Your task to perform on an android device: turn notification dots on Image 0: 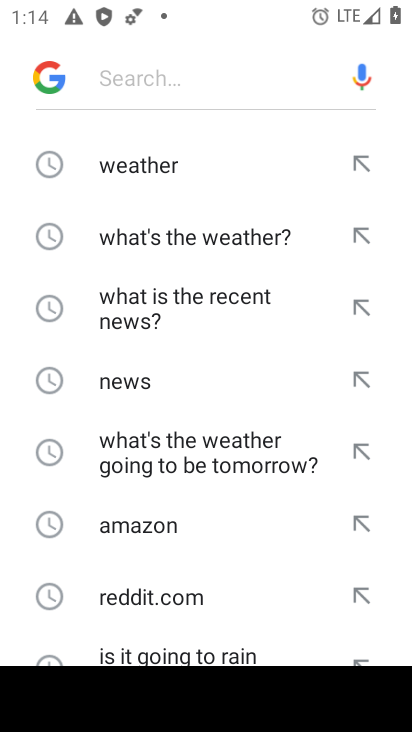
Step 0: press home button
Your task to perform on an android device: turn notification dots on Image 1: 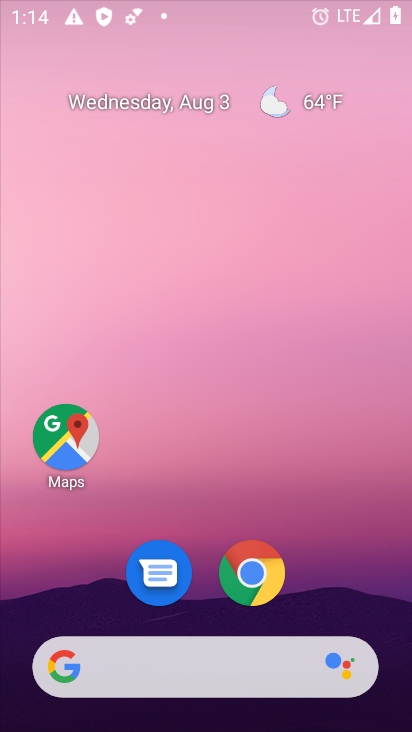
Step 1: drag from (231, 679) to (392, 338)
Your task to perform on an android device: turn notification dots on Image 2: 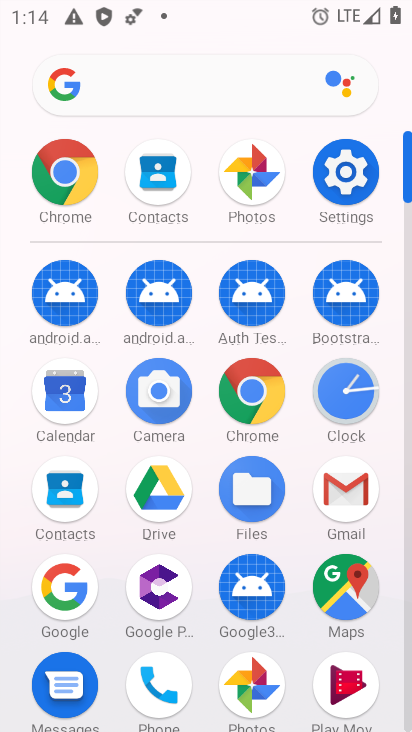
Step 2: click (339, 195)
Your task to perform on an android device: turn notification dots on Image 3: 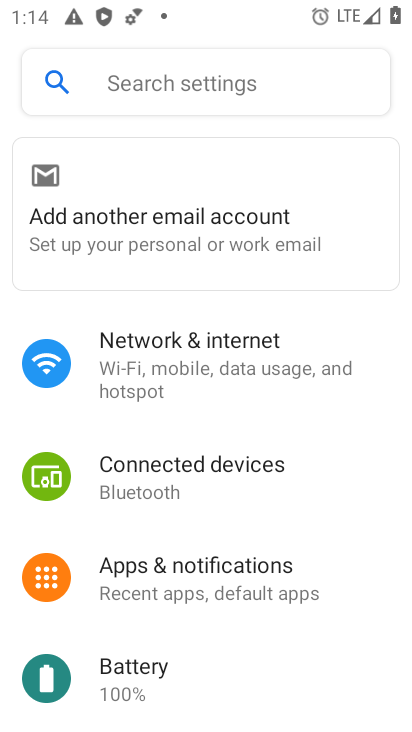
Step 3: click (223, 587)
Your task to perform on an android device: turn notification dots on Image 4: 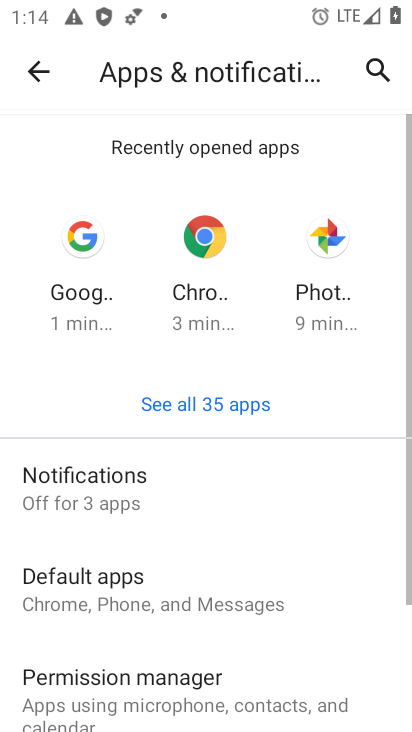
Step 4: drag from (201, 598) to (399, 32)
Your task to perform on an android device: turn notification dots on Image 5: 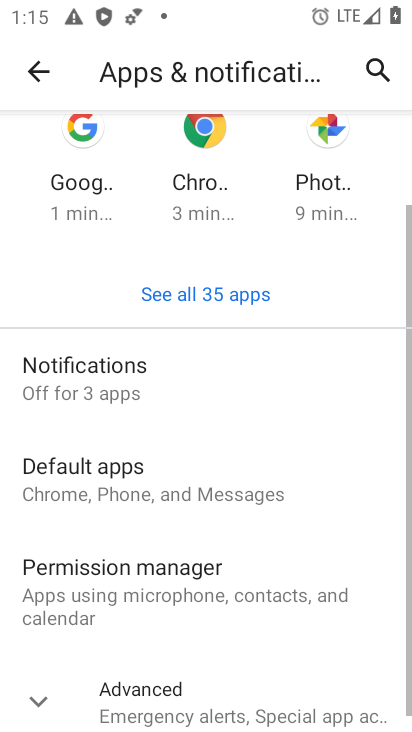
Step 5: drag from (110, 624) to (129, 260)
Your task to perform on an android device: turn notification dots on Image 6: 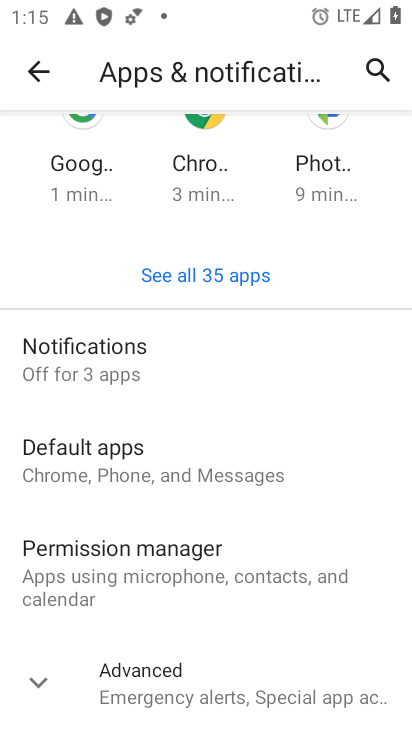
Step 6: drag from (162, 601) to (180, 255)
Your task to perform on an android device: turn notification dots on Image 7: 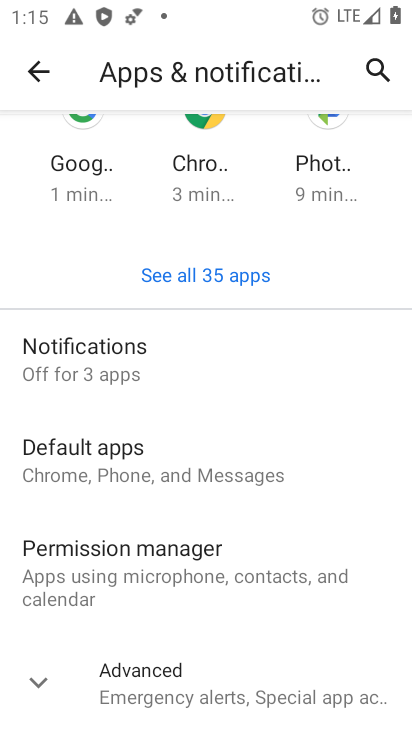
Step 7: drag from (216, 527) to (220, 255)
Your task to perform on an android device: turn notification dots on Image 8: 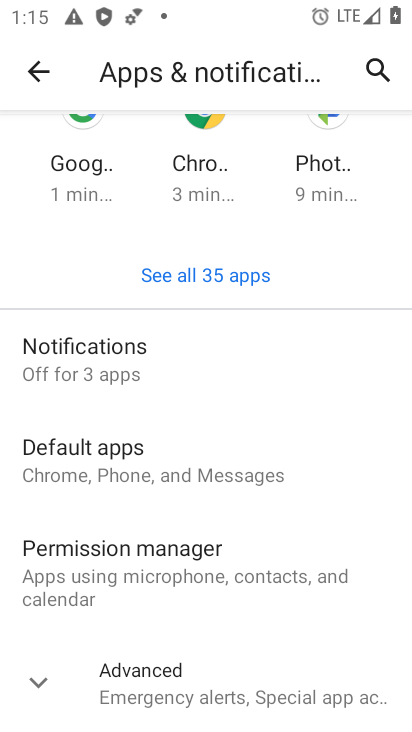
Step 8: drag from (180, 602) to (246, 56)
Your task to perform on an android device: turn notification dots on Image 9: 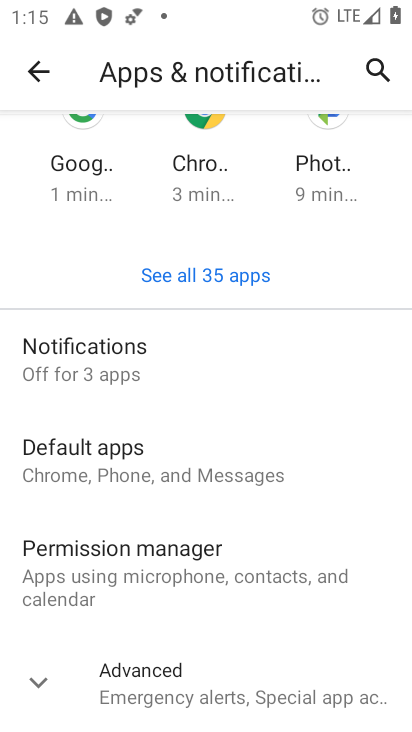
Step 9: click (157, 687)
Your task to perform on an android device: turn notification dots on Image 10: 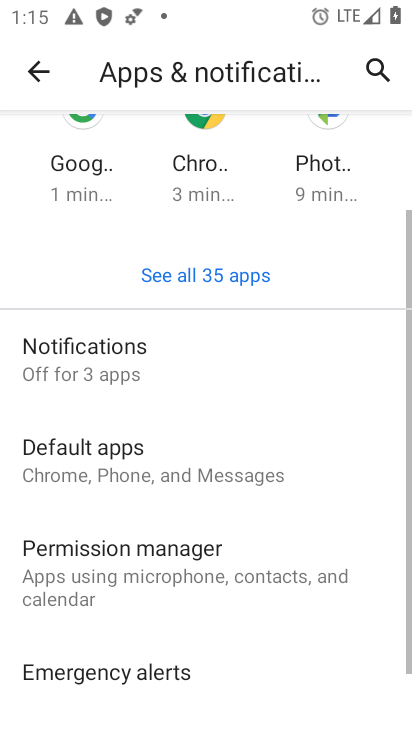
Step 10: drag from (219, 525) to (232, 91)
Your task to perform on an android device: turn notification dots on Image 11: 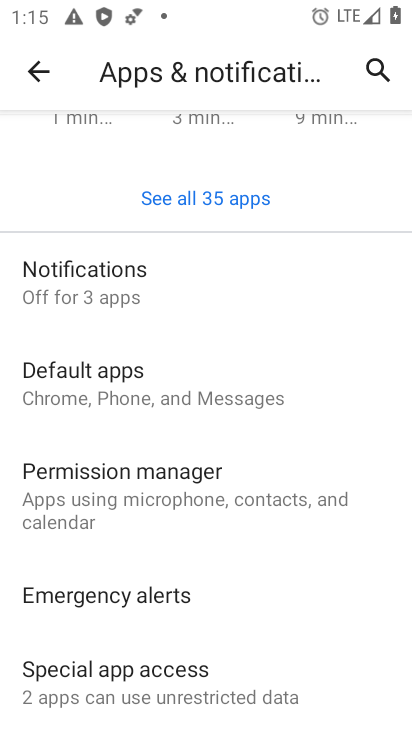
Step 11: drag from (152, 559) to (150, 190)
Your task to perform on an android device: turn notification dots on Image 12: 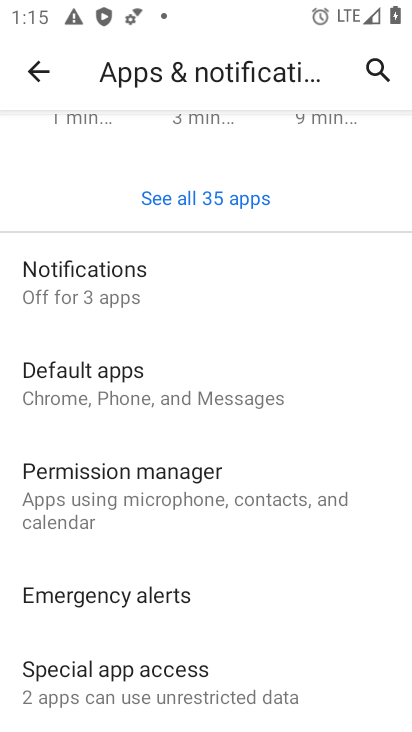
Step 12: click (171, 275)
Your task to perform on an android device: turn notification dots on Image 13: 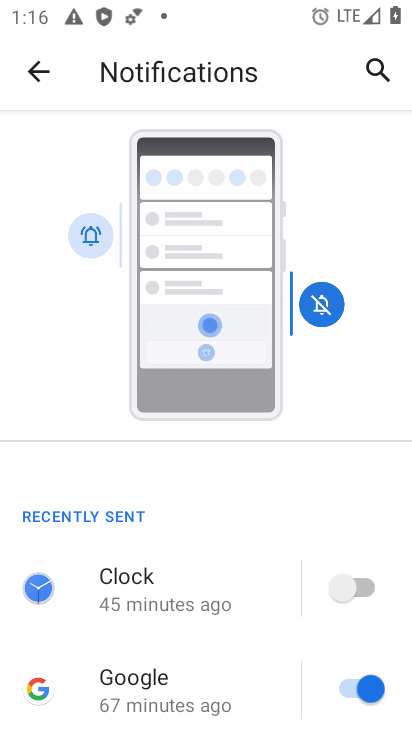
Step 13: drag from (170, 643) to (192, 169)
Your task to perform on an android device: turn notification dots on Image 14: 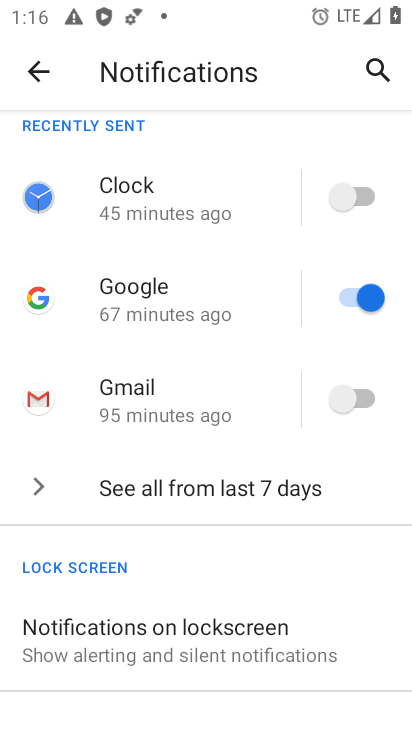
Step 14: drag from (159, 556) to (170, 236)
Your task to perform on an android device: turn notification dots on Image 15: 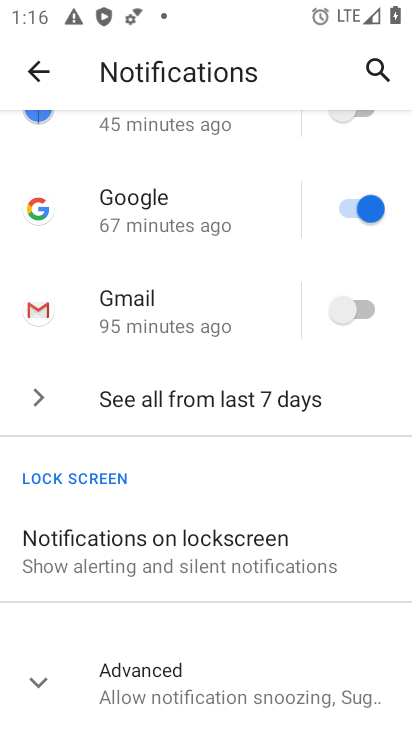
Step 15: drag from (150, 610) to (164, 288)
Your task to perform on an android device: turn notification dots on Image 16: 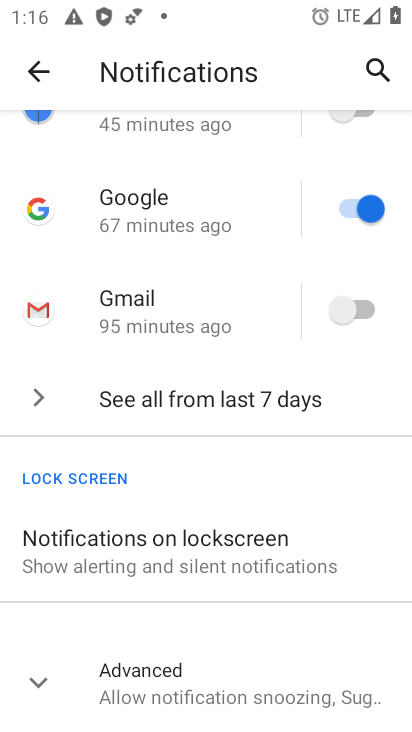
Step 16: drag from (231, 601) to (247, 229)
Your task to perform on an android device: turn notification dots on Image 17: 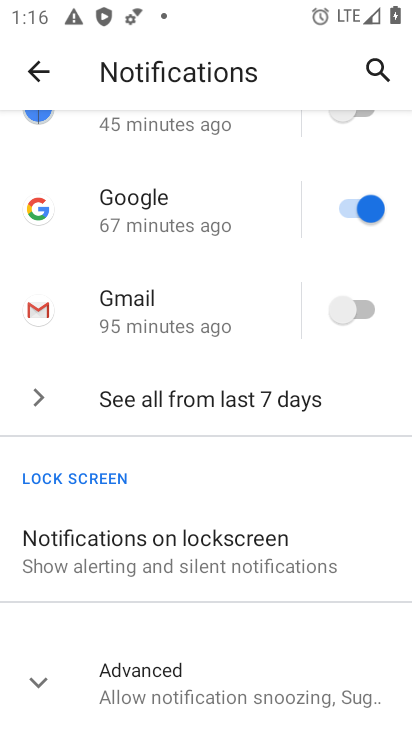
Step 17: click (188, 687)
Your task to perform on an android device: turn notification dots on Image 18: 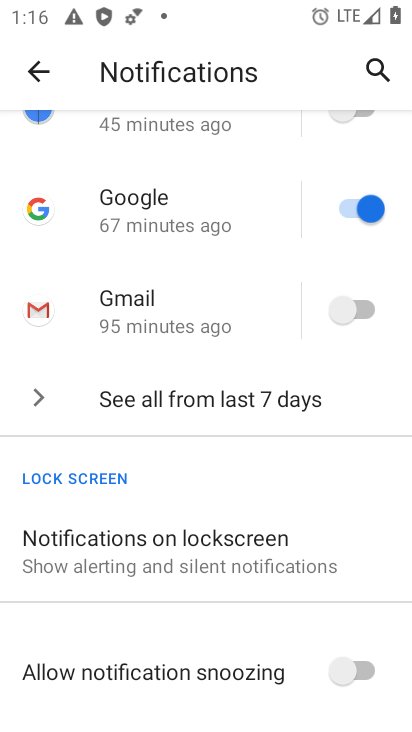
Step 18: drag from (206, 525) to (253, 90)
Your task to perform on an android device: turn notification dots on Image 19: 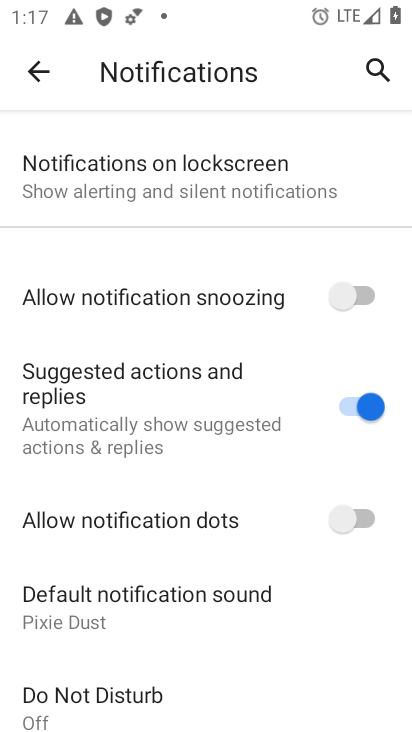
Step 19: drag from (223, 633) to (259, 262)
Your task to perform on an android device: turn notification dots on Image 20: 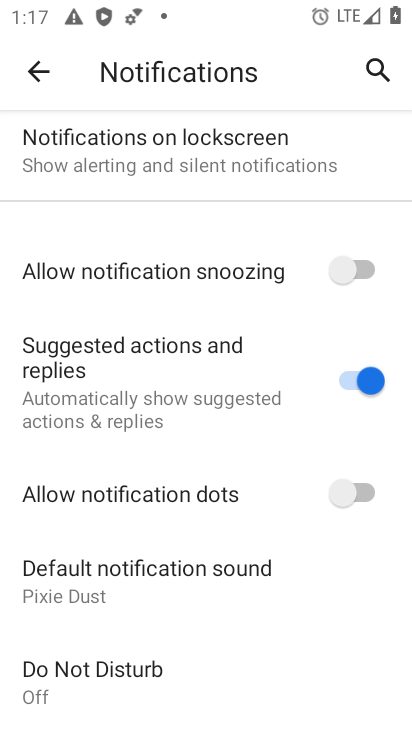
Step 20: drag from (198, 610) to (226, 173)
Your task to perform on an android device: turn notification dots on Image 21: 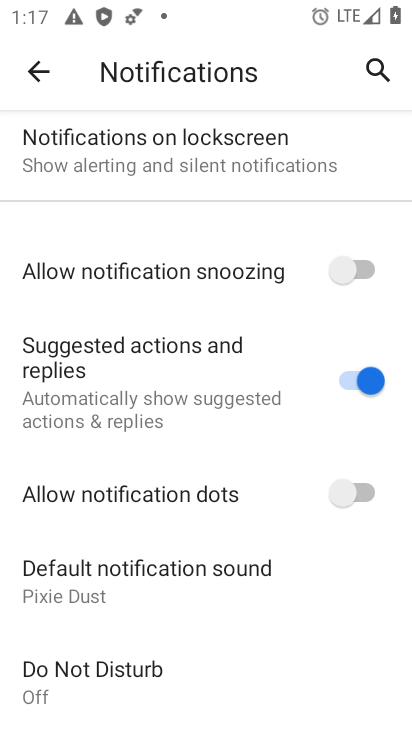
Step 21: drag from (204, 605) to (269, 171)
Your task to perform on an android device: turn notification dots on Image 22: 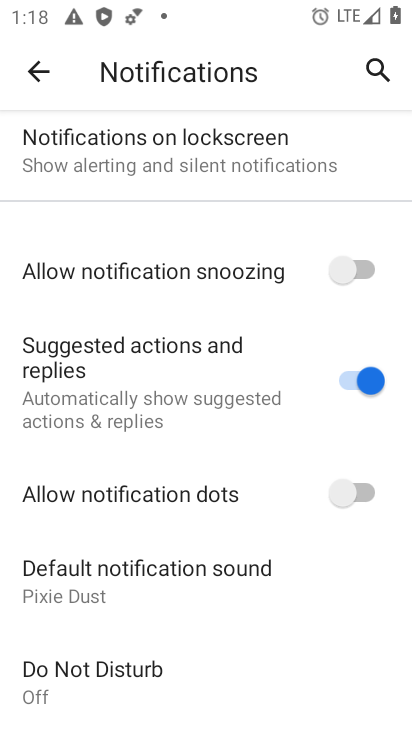
Step 22: click (229, 501)
Your task to perform on an android device: turn notification dots on Image 23: 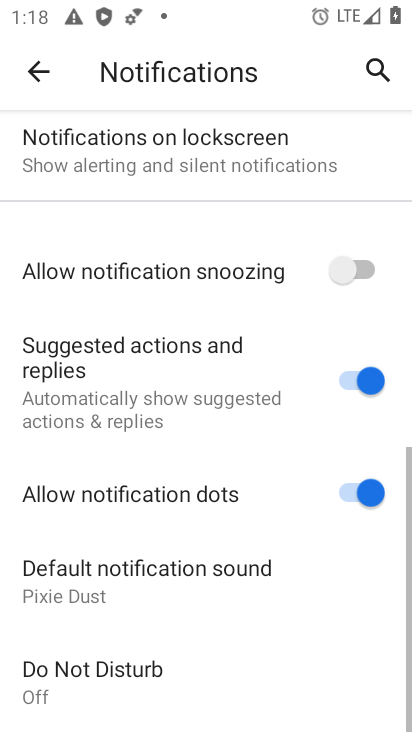
Step 23: task complete